Your task to perform on an android device: Check the weather Image 0: 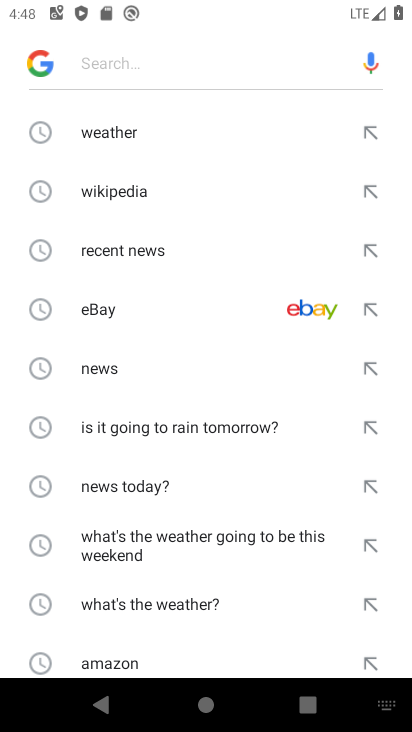
Step 0: press home button
Your task to perform on an android device: Check the weather Image 1: 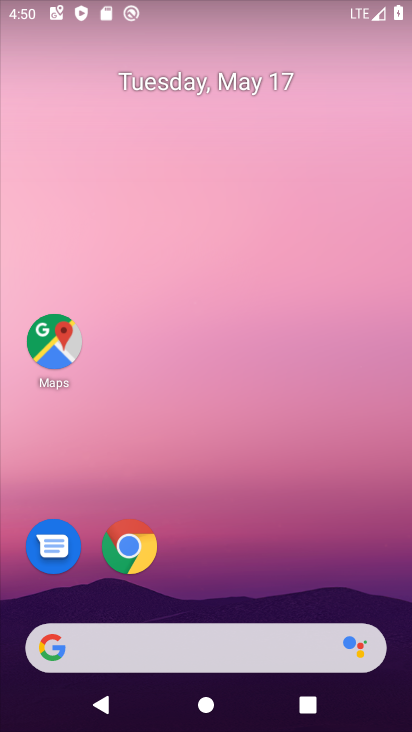
Step 1: drag from (188, 547) to (176, 218)
Your task to perform on an android device: Check the weather Image 2: 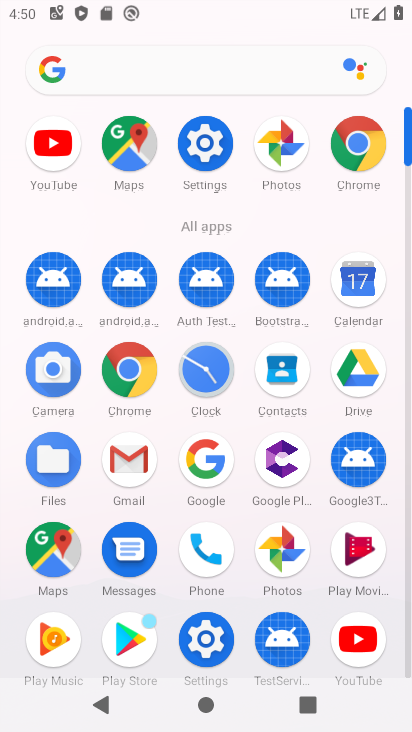
Step 2: click (200, 463)
Your task to perform on an android device: Check the weather Image 3: 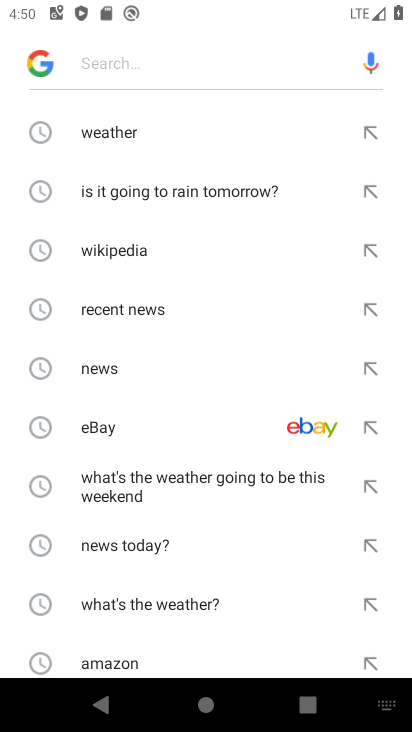
Step 3: click (114, 139)
Your task to perform on an android device: Check the weather Image 4: 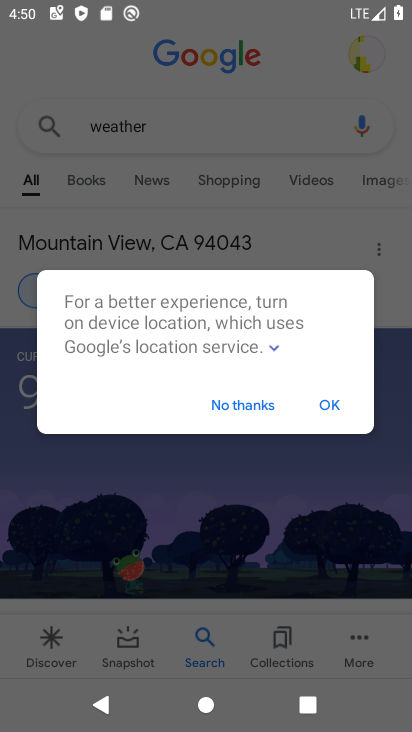
Step 4: click (324, 409)
Your task to perform on an android device: Check the weather Image 5: 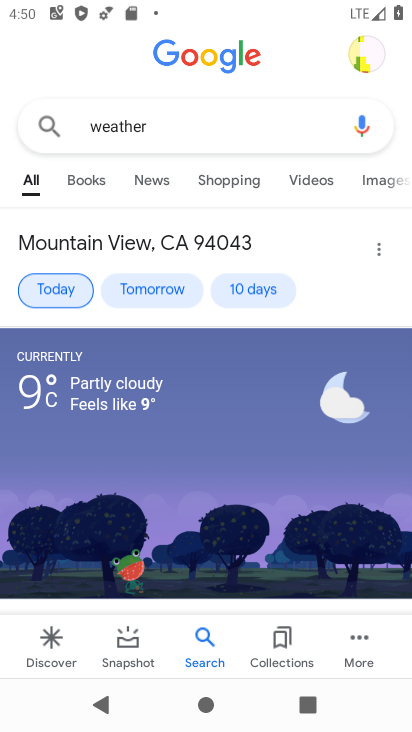
Step 5: task complete